Your task to perform on an android device: turn vacation reply on in the gmail app Image 0: 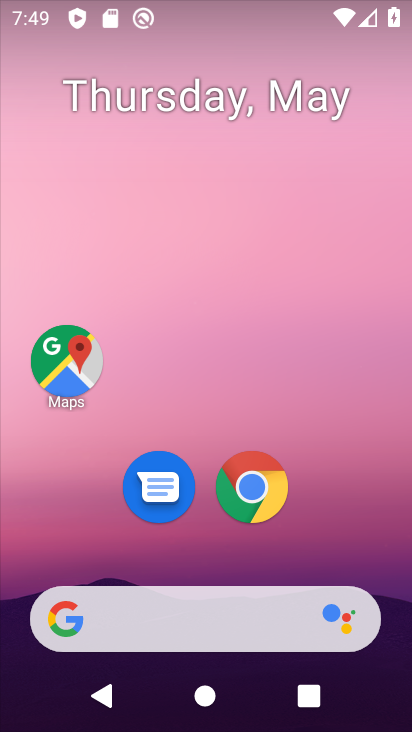
Step 0: drag from (162, 700) to (209, 61)
Your task to perform on an android device: turn vacation reply on in the gmail app Image 1: 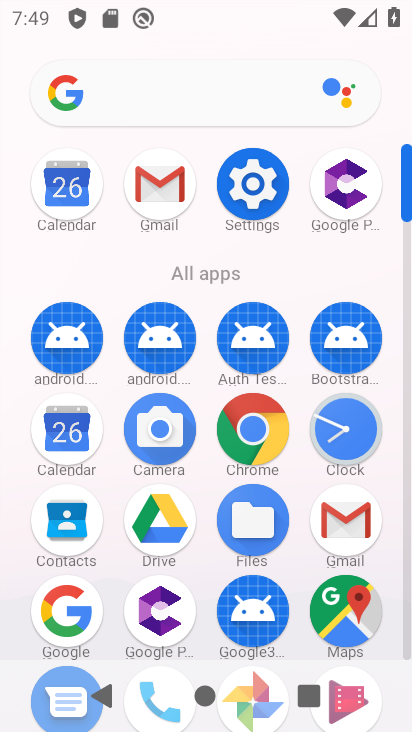
Step 1: click (340, 530)
Your task to perform on an android device: turn vacation reply on in the gmail app Image 2: 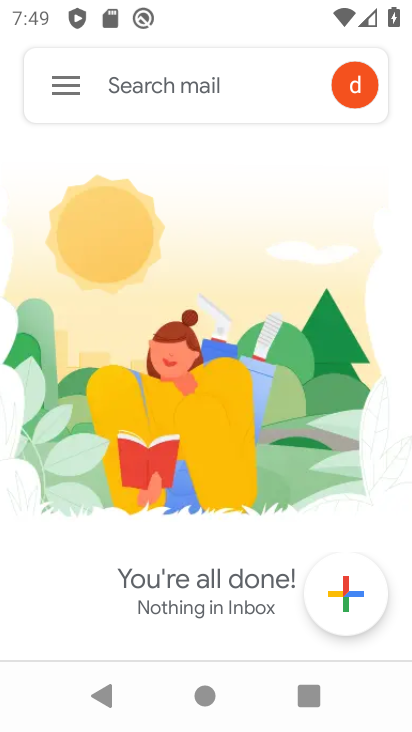
Step 2: click (72, 93)
Your task to perform on an android device: turn vacation reply on in the gmail app Image 3: 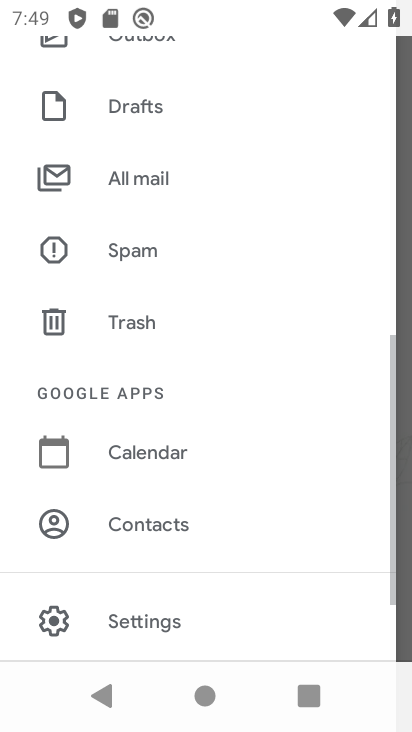
Step 3: click (165, 632)
Your task to perform on an android device: turn vacation reply on in the gmail app Image 4: 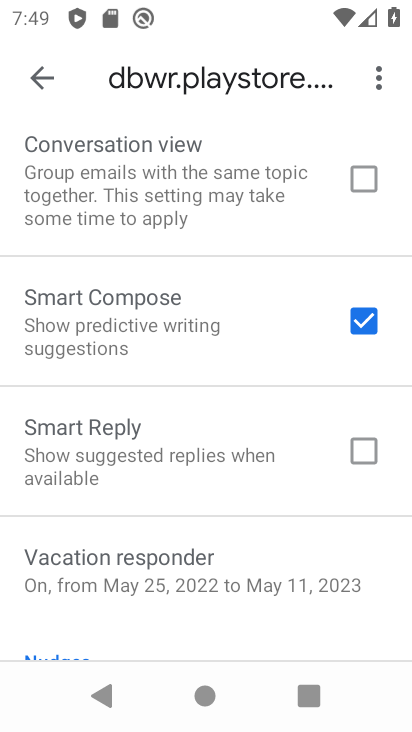
Step 4: drag from (178, 616) to (209, 334)
Your task to perform on an android device: turn vacation reply on in the gmail app Image 5: 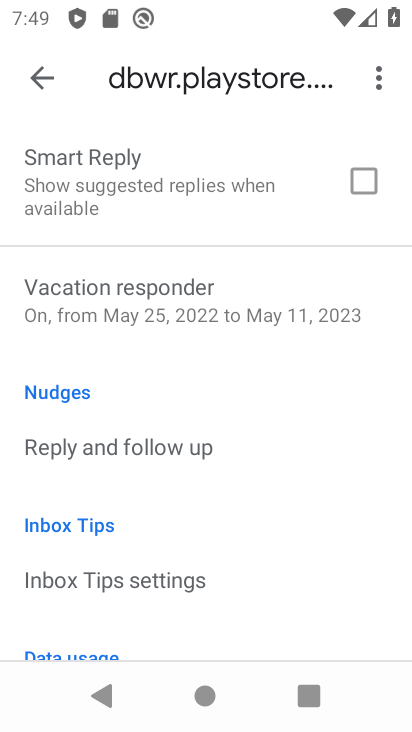
Step 5: click (191, 299)
Your task to perform on an android device: turn vacation reply on in the gmail app Image 6: 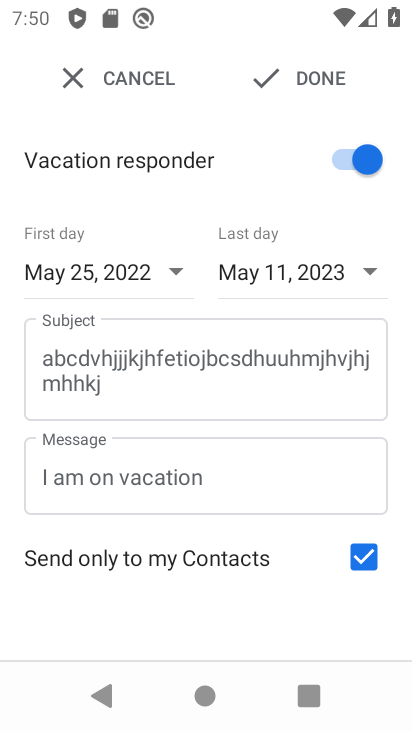
Step 6: task complete